Your task to perform on an android device: When is my next appointment? Image 0: 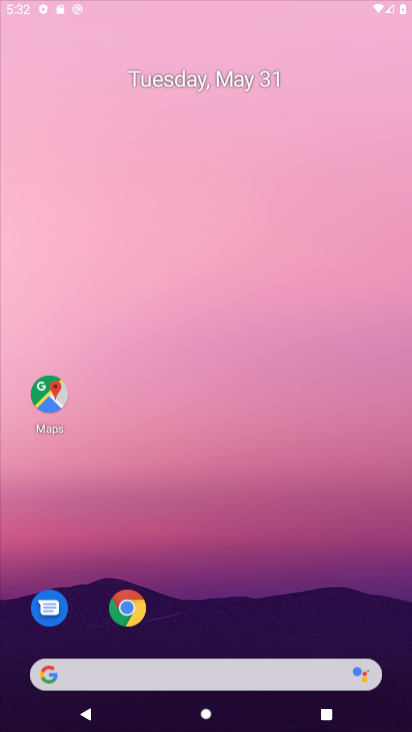
Step 0: click (235, 203)
Your task to perform on an android device: When is my next appointment? Image 1: 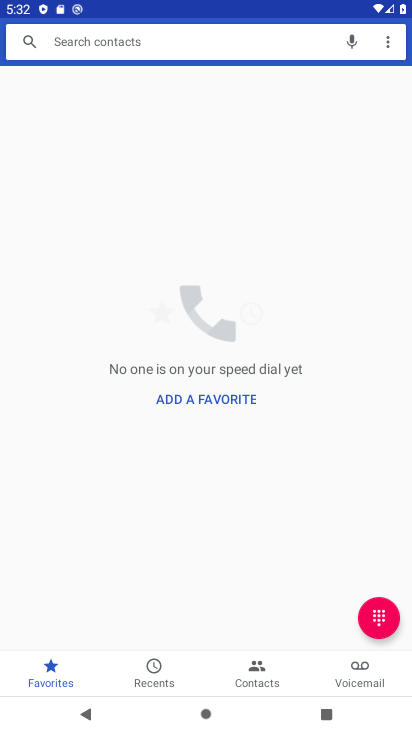
Step 1: press home button
Your task to perform on an android device: When is my next appointment? Image 2: 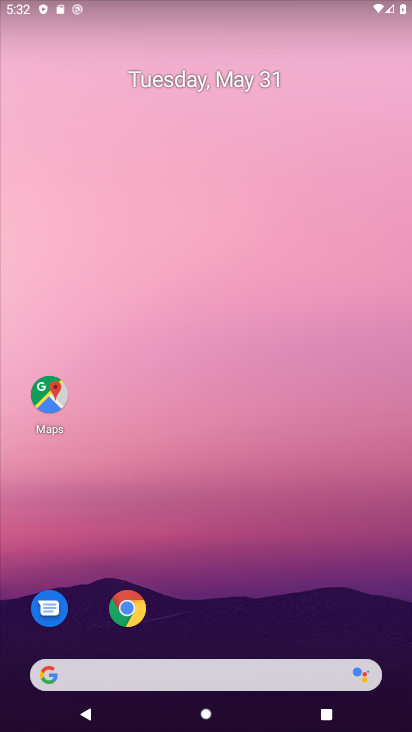
Step 2: drag from (184, 659) to (178, 229)
Your task to perform on an android device: When is my next appointment? Image 3: 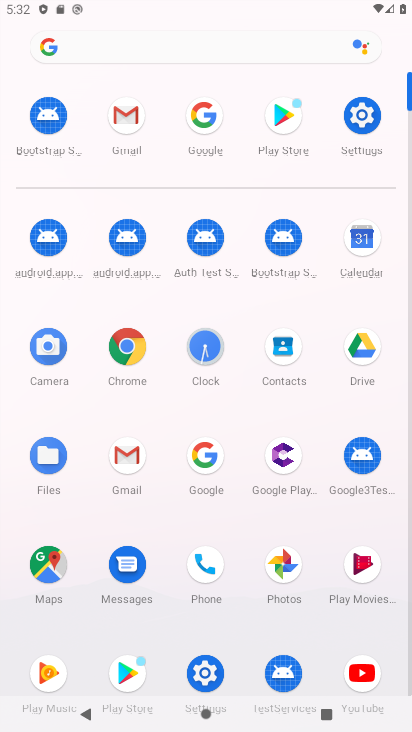
Step 3: click (362, 238)
Your task to perform on an android device: When is my next appointment? Image 4: 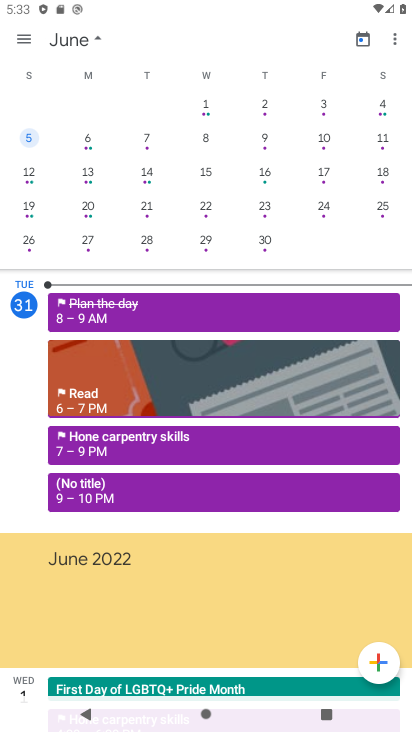
Step 4: click (118, 432)
Your task to perform on an android device: When is my next appointment? Image 5: 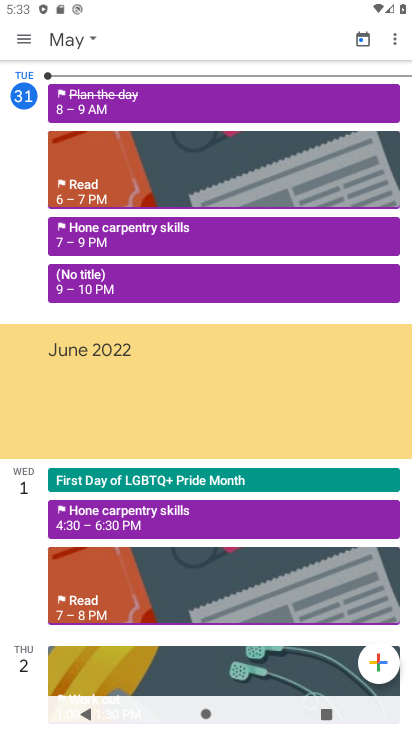
Step 5: task complete